Your task to perform on an android device: set default search engine in the chrome app Image 0: 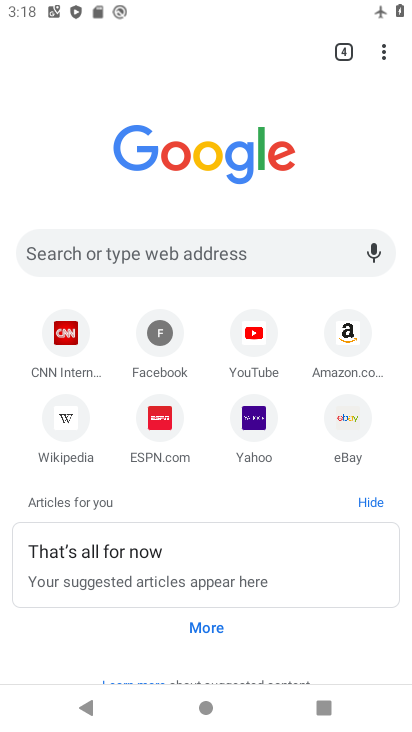
Step 0: click (379, 38)
Your task to perform on an android device: set default search engine in the chrome app Image 1: 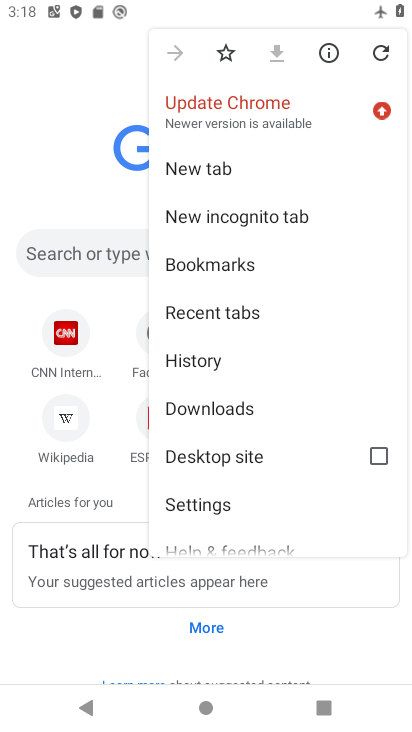
Step 1: click (231, 280)
Your task to perform on an android device: set default search engine in the chrome app Image 2: 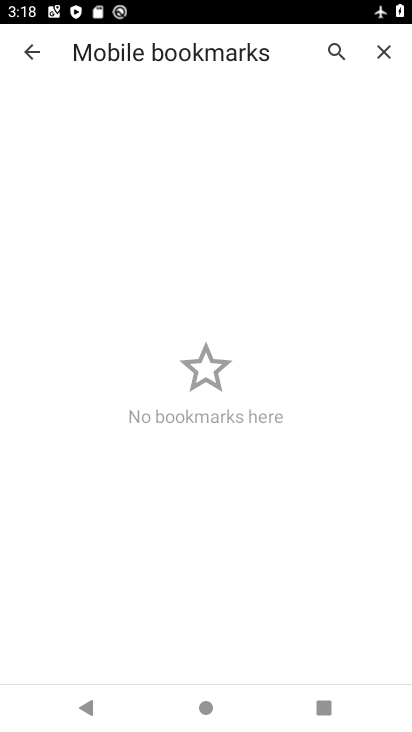
Step 2: click (21, 37)
Your task to perform on an android device: set default search engine in the chrome app Image 3: 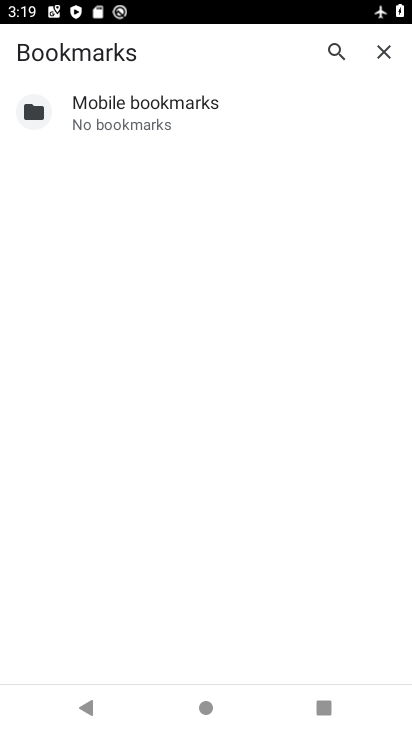
Step 3: click (361, 53)
Your task to perform on an android device: set default search engine in the chrome app Image 4: 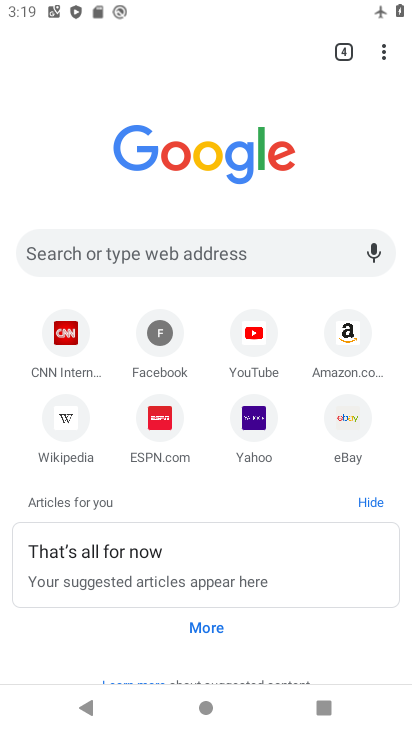
Step 4: click (383, 48)
Your task to perform on an android device: set default search engine in the chrome app Image 5: 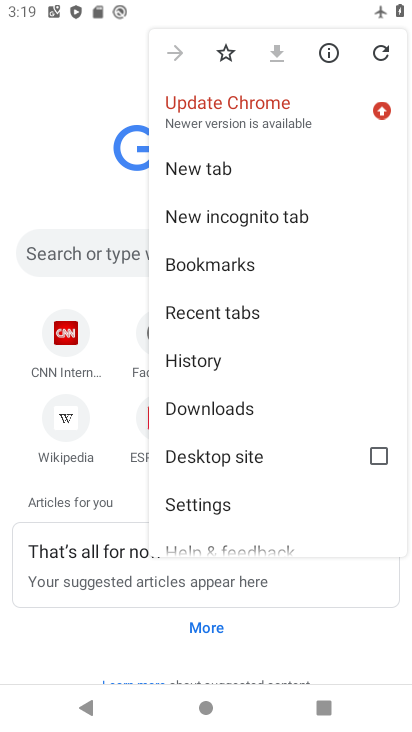
Step 5: click (125, 577)
Your task to perform on an android device: set default search engine in the chrome app Image 6: 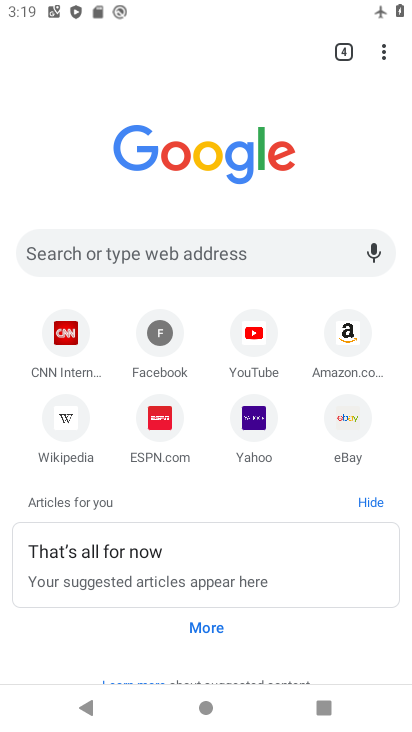
Step 6: click (379, 51)
Your task to perform on an android device: set default search engine in the chrome app Image 7: 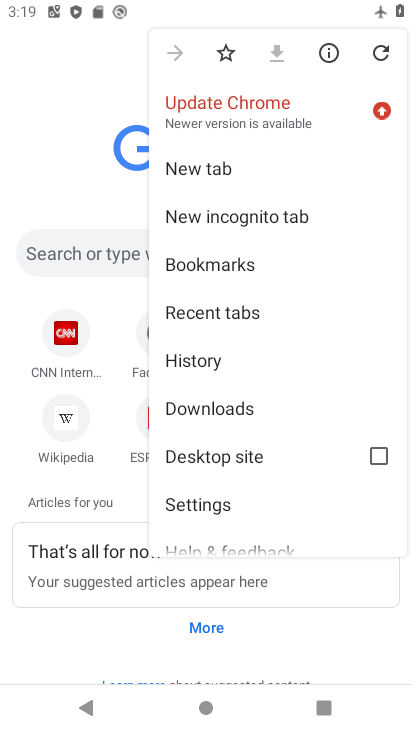
Step 7: click (232, 506)
Your task to perform on an android device: set default search engine in the chrome app Image 8: 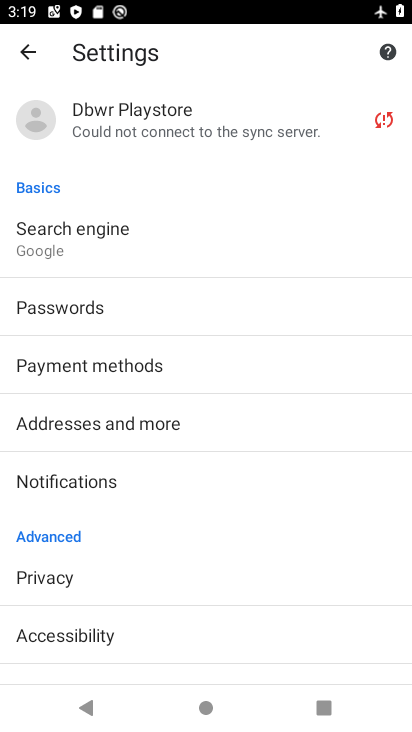
Step 8: click (123, 590)
Your task to perform on an android device: set default search engine in the chrome app Image 9: 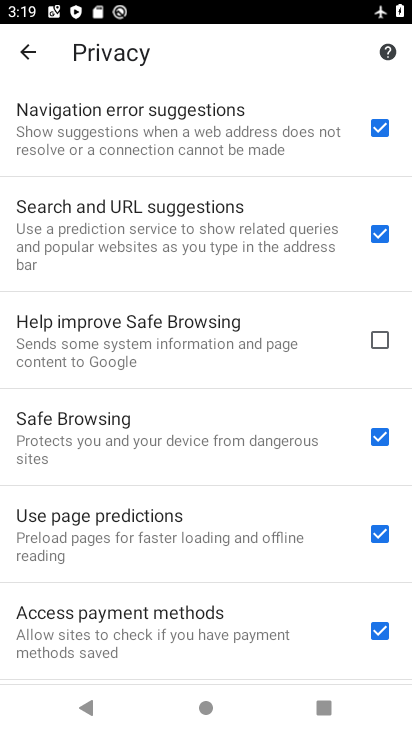
Step 9: click (33, 43)
Your task to perform on an android device: set default search engine in the chrome app Image 10: 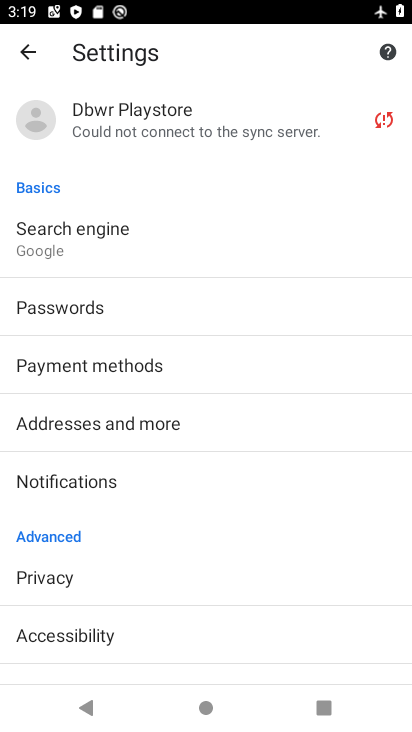
Step 10: click (33, 43)
Your task to perform on an android device: set default search engine in the chrome app Image 11: 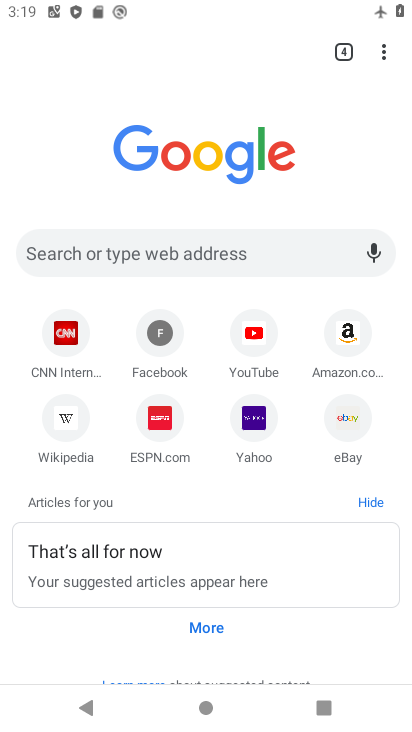
Step 11: click (393, 65)
Your task to perform on an android device: set default search engine in the chrome app Image 12: 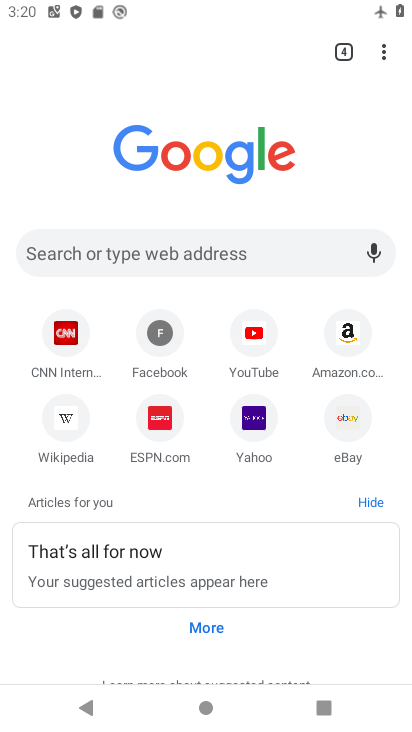
Step 12: click (381, 61)
Your task to perform on an android device: set default search engine in the chrome app Image 13: 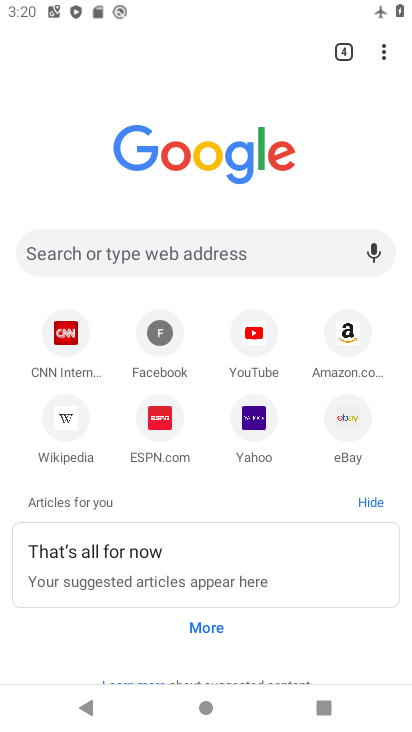
Step 13: click (374, 66)
Your task to perform on an android device: set default search engine in the chrome app Image 14: 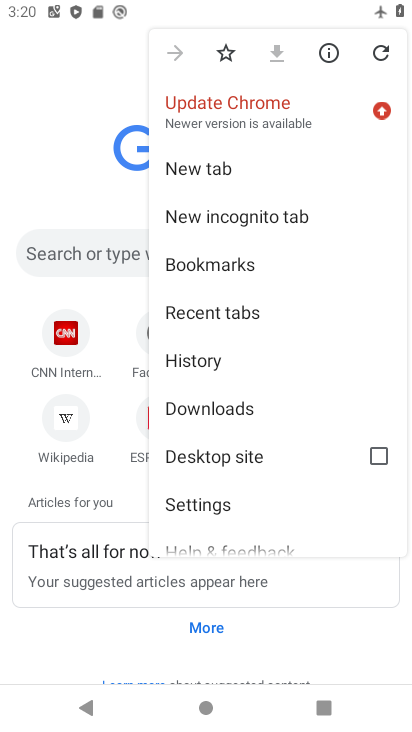
Step 14: click (201, 489)
Your task to perform on an android device: set default search engine in the chrome app Image 15: 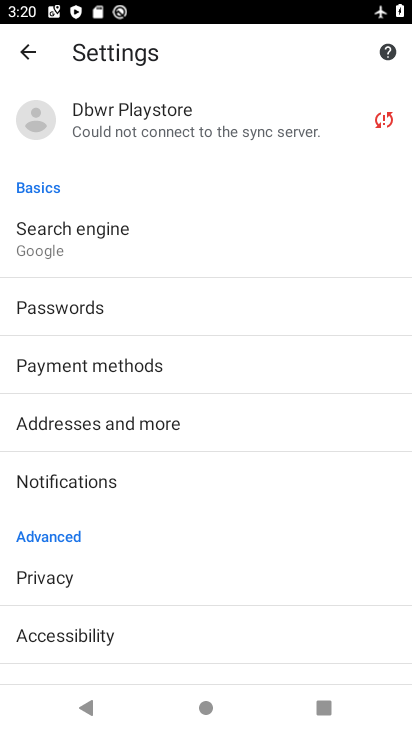
Step 15: click (130, 252)
Your task to perform on an android device: set default search engine in the chrome app Image 16: 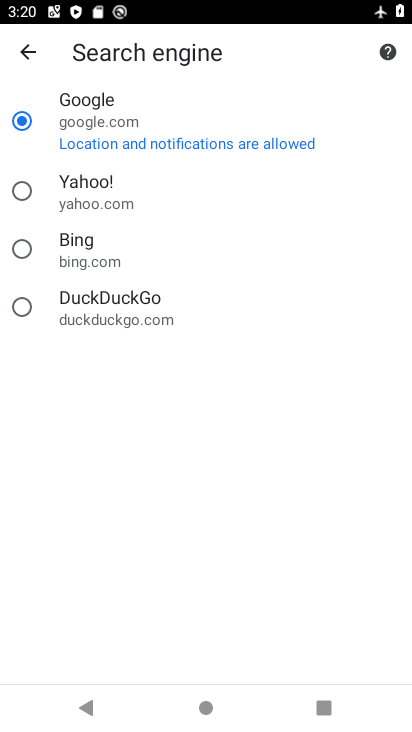
Step 16: click (130, 252)
Your task to perform on an android device: set default search engine in the chrome app Image 17: 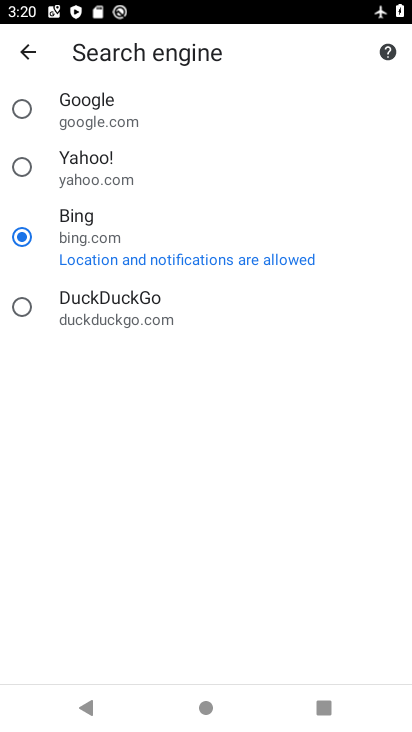
Step 17: task complete